Your task to perform on an android device: What's the weather today? Image 0: 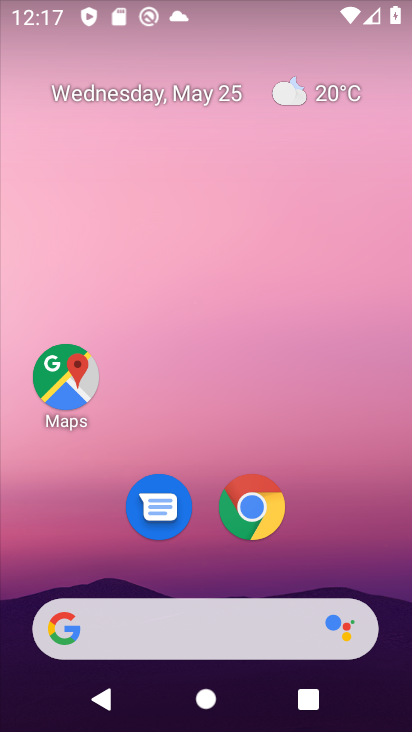
Step 0: drag from (332, 475) to (334, 110)
Your task to perform on an android device: What's the weather today? Image 1: 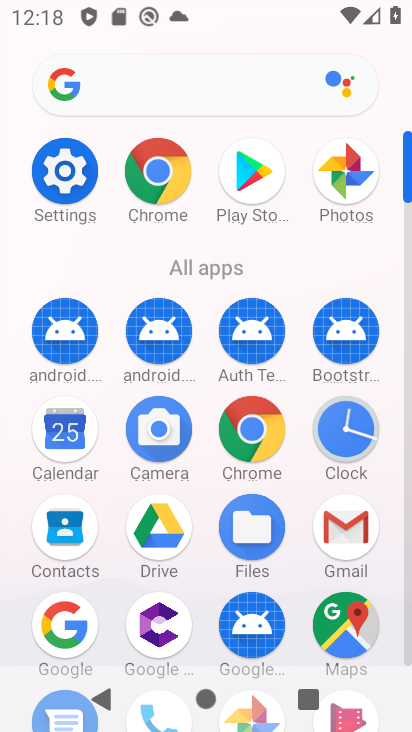
Step 1: click (167, 167)
Your task to perform on an android device: What's the weather today? Image 2: 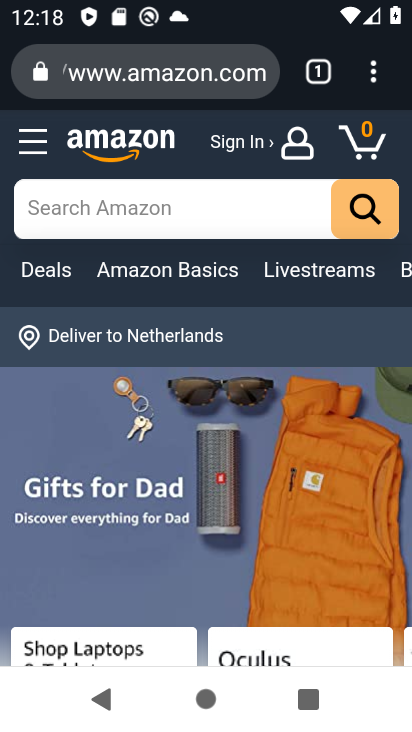
Step 2: click (154, 43)
Your task to perform on an android device: What's the weather today? Image 3: 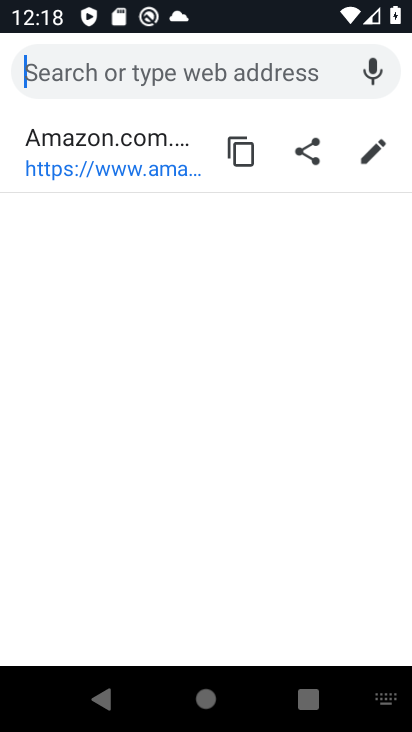
Step 3: type "what's the weather today"
Your task to perform on an android device: What's the weather today? Image 4: 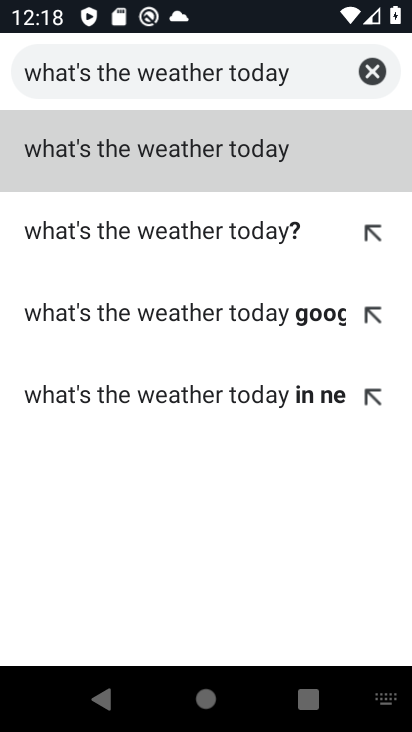
Step 4: click (252, 180)
Your task to perform on an android device: What's the weather today? Image 5: 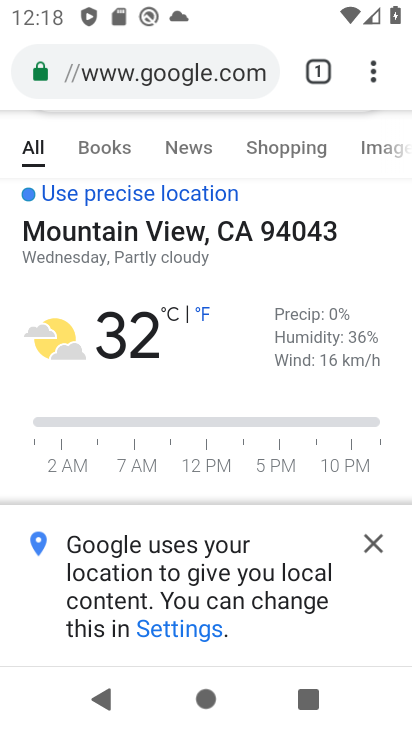
Step 5: task complete